Your task to perform on an android device: Open the web browser Image 0: 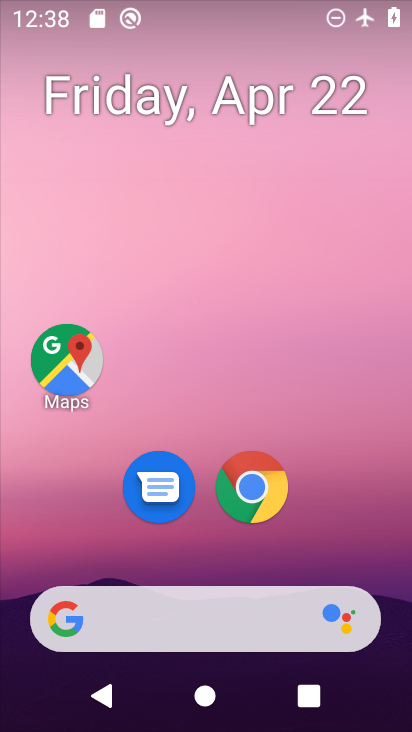
Step 0: click (257, 490)
Your task to perform on an android device: Open the web browser Image 1: 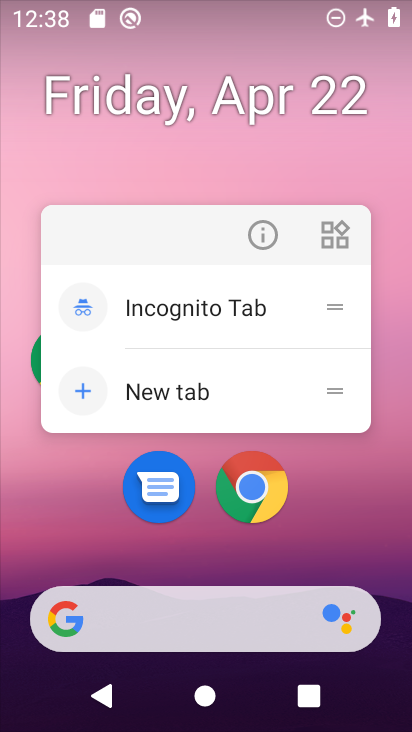
Step 1: click (258, 483)
Your task to perform on an android device: Open the web browser Image 2: 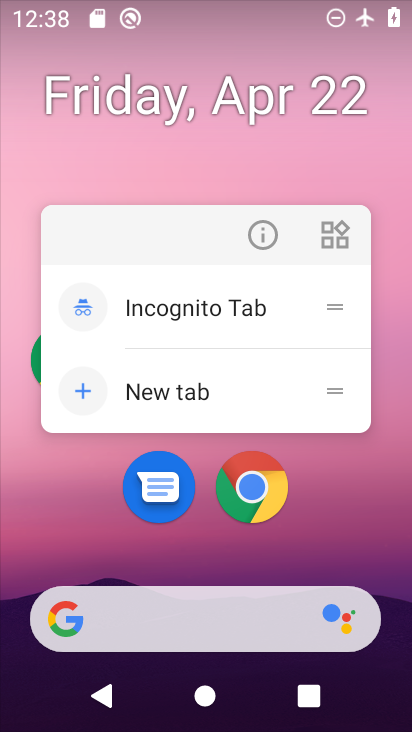
Step 2: click (258, 483)
Your task to perform on an android device: Open the web browser Image 3: 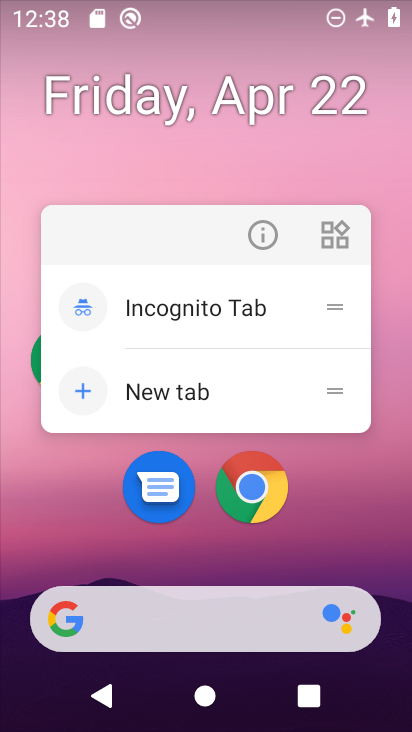
Step 3: click (264, 460)
Your task to perform on an android device: Open the web browser Image 4: 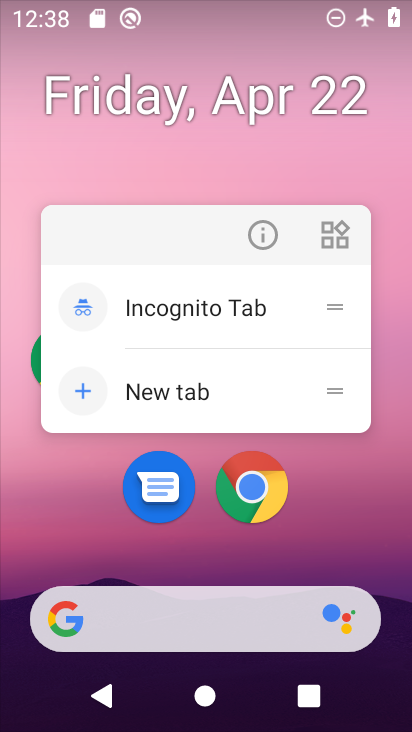
Step 4: click (255, 475)
Your task to perform on an android device: Open the web browser Image 5: 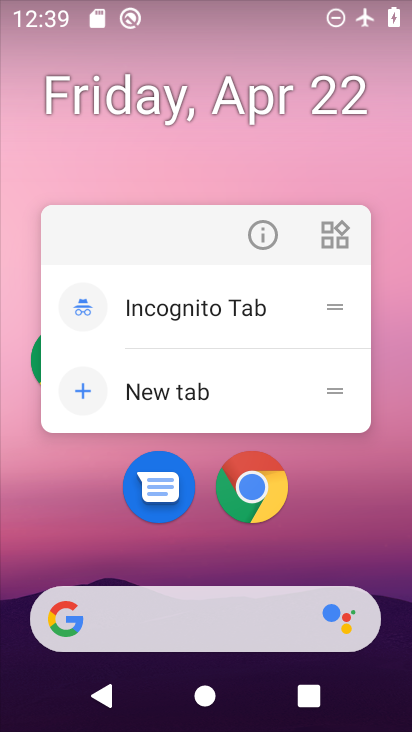
Step 5: click (311, 580)
Your task to perform on an android device: Open the web browser Image 6: 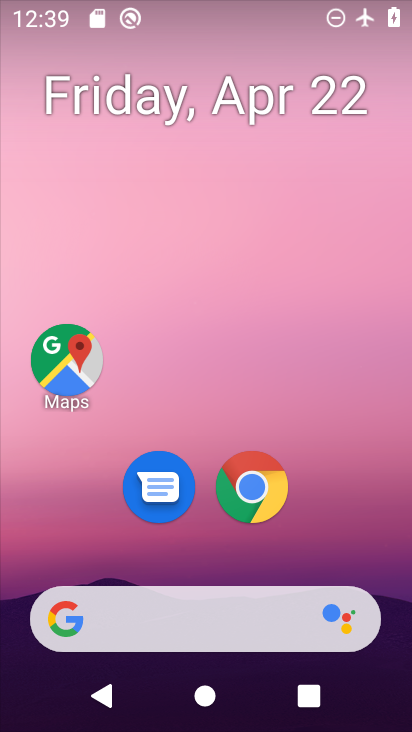
Step 6: drag from (317, 553) to (259, 4)
Your task to perform on an android device: Open the web browser Image 7: 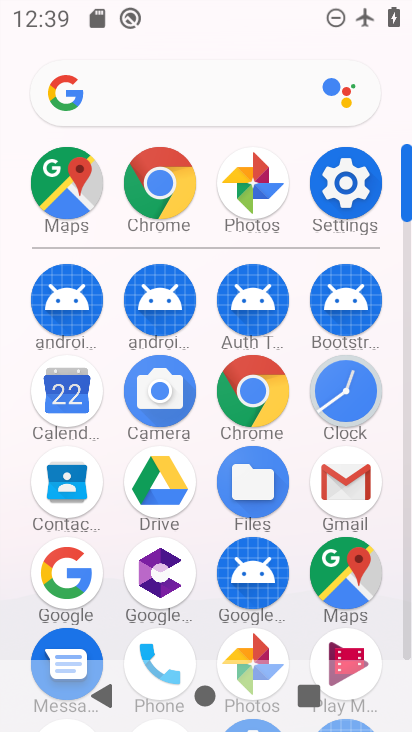
Step 7: click (259, 392)
Your task to perform on an android device: Open the web browser Image 8: 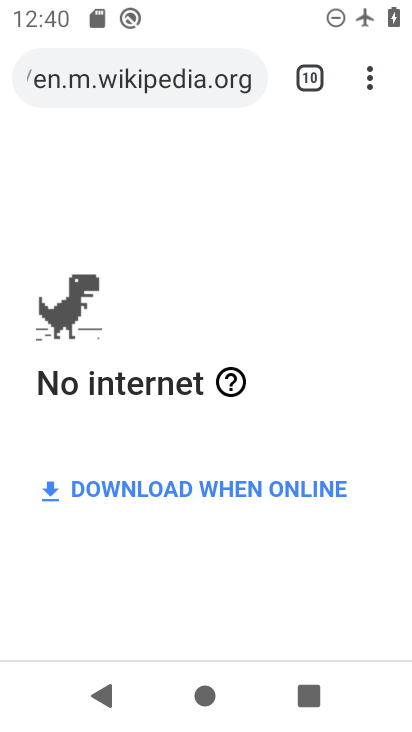
Step 8: task complete